Your task to perform on an android device: What's the weather going to be this weekend? Image 0: 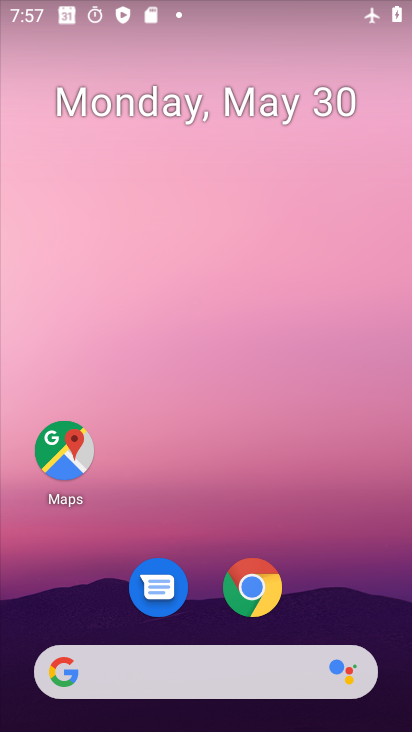
Step 0: drag from (318, 527) to (176, 19)
Your task to perform on an android device: What's the weather going to be this weekend? Image 1: 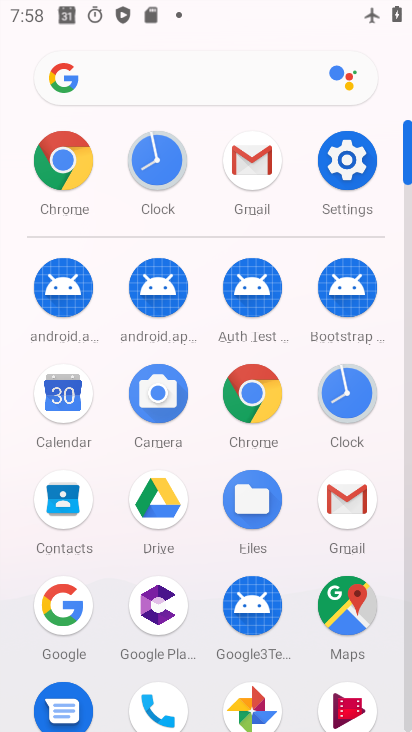
Step 1: drag from (14, 613) to (13, 241)
Your task to perform on an android device: What's the weather going to be this weekend? Image 2: 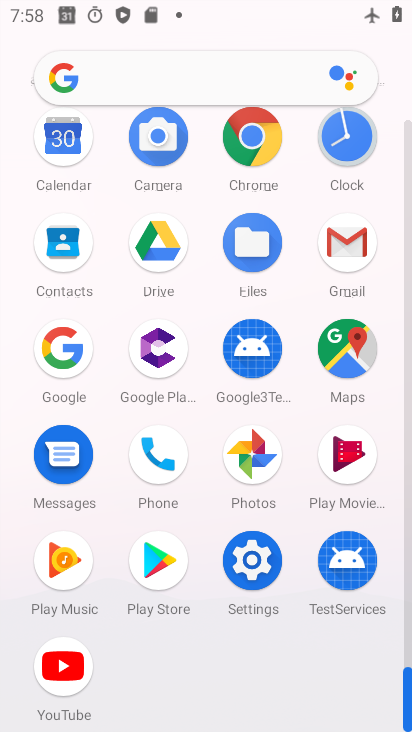
Step 2: click (251, 131)
Your task to perform on an android device: What's the weather going to be this weekend? Image 3: 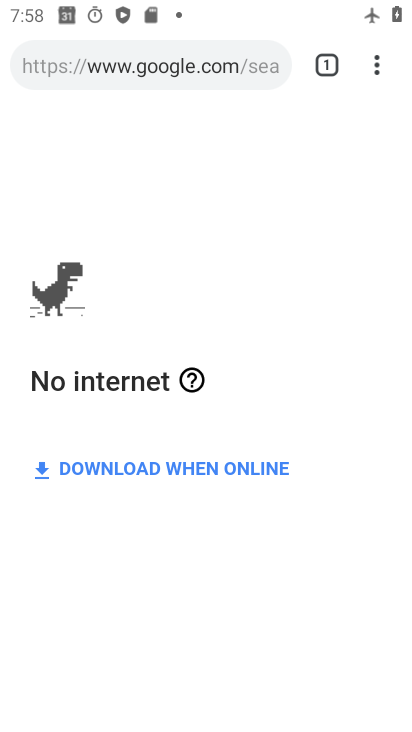
Step 3: click (119, 59)
Your task to perform on an android device: What's the weather going to be this weekend? Image 4: 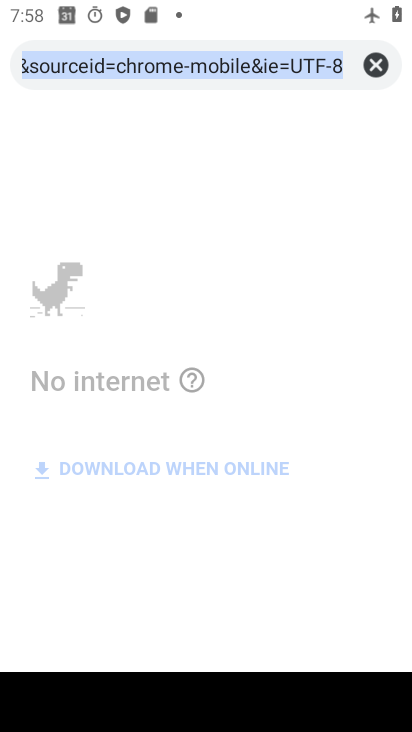
Step 4: click (373, 60)
Your task to perform on an android device: What's the weather going to be this weekend? Image 5: 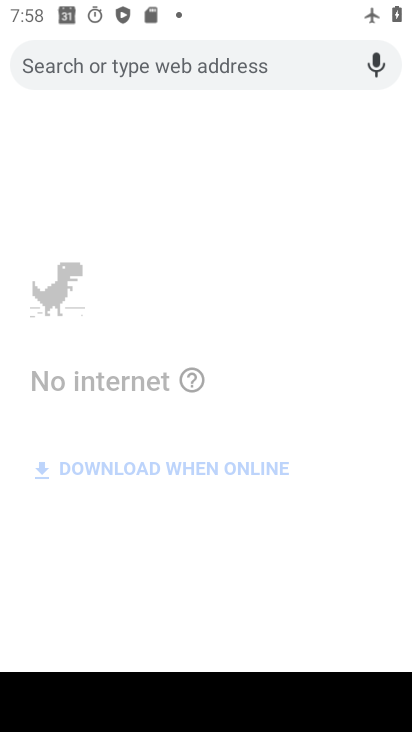
Step 5: type "What's the weather going to be this weekend?"
Your task to perform on an android device: What's the weather going to be this weekend? Image 6: 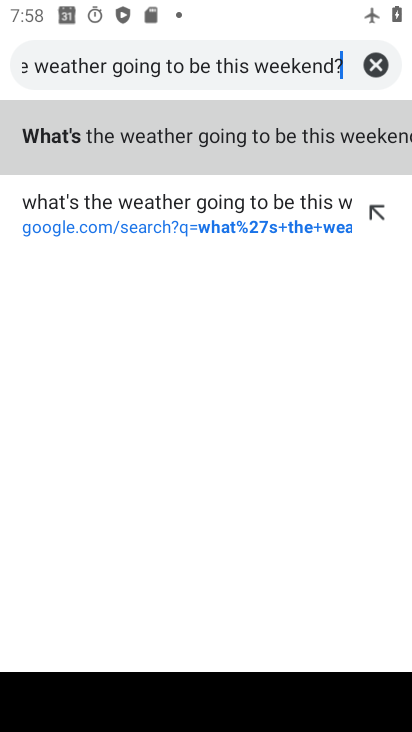
Step 6: type ""
Your task to perform on an android device: What's the weather going to be this weekend? Image 7: 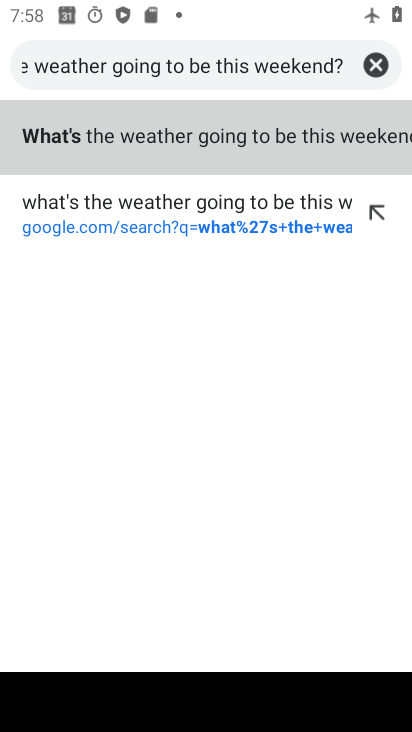
Step 7: click (243, 137)
Your task to perform on an android device: What's the weather going to be this weekend? Image 8: 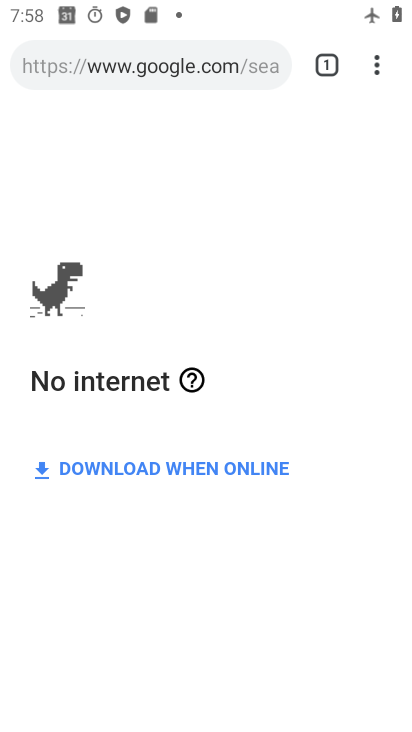
Step 8: task complete